Your task to perform on an android device: What's the weather going to be this weekend? Image 0: 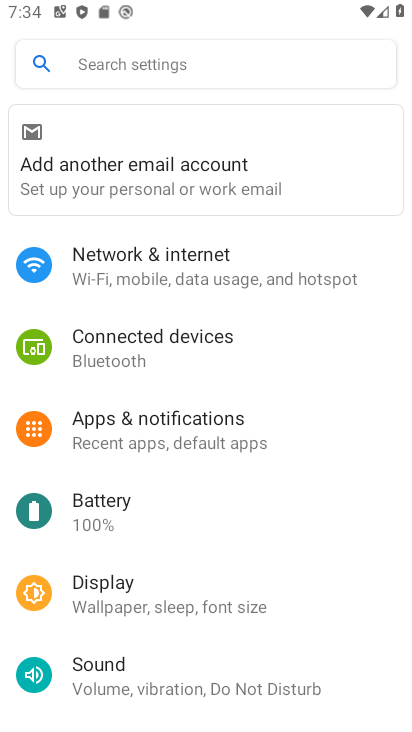
Step 0: press home button
Your task to perform on an android device: What's the weather going to be this weekend? Image 1: 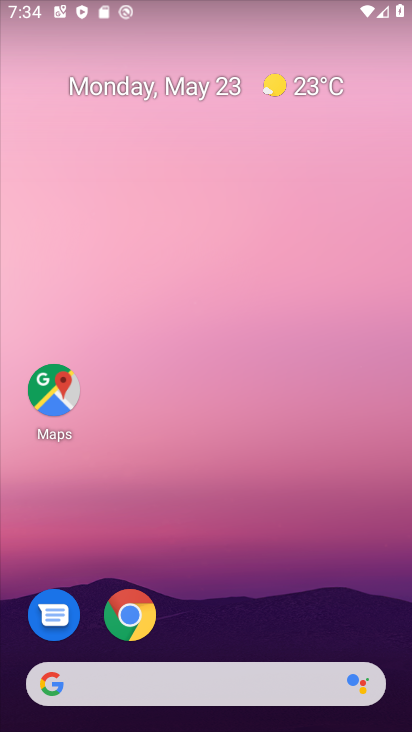
Step 1: drag from (263, 567) to (174, 274)
Your task to perform on an android device: What's the weather going to be this weekend? Image 2: 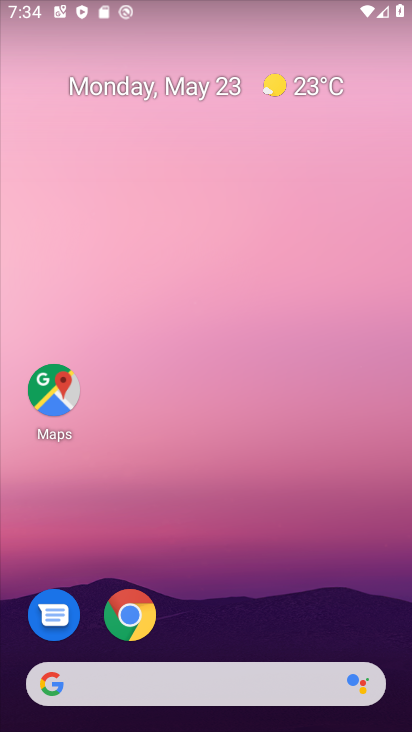
Step 2: drag from (284, 561) to (197, 138)
Your task to perform on an android device: What's the weather going to be this weekend? Image 3: 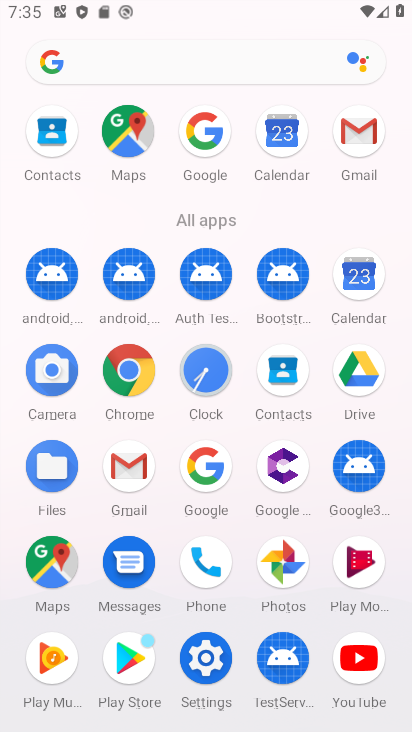
Step 3: click (201, 131)
Your task to perform on an android device: What's the weather going to be this weekend? Image 4: 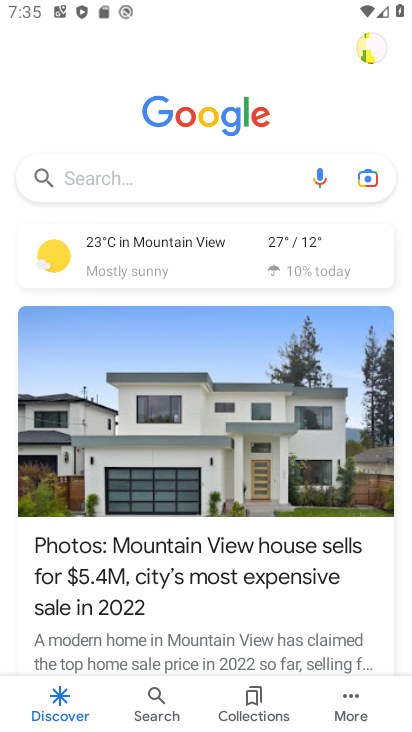
Step 4: click (221, 191)
Your task to perform on an android device: What's the weather going to be this weekend? Image 5: 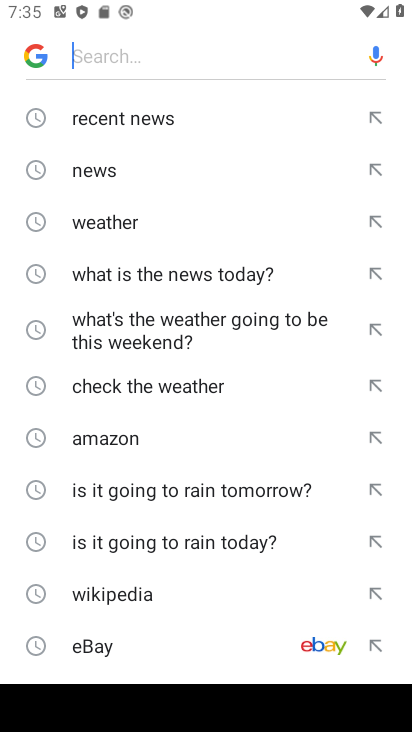
Step 5: click (194, 333)
Your task to perform on an android device: What's the weather going to be this weekend? Image 6: 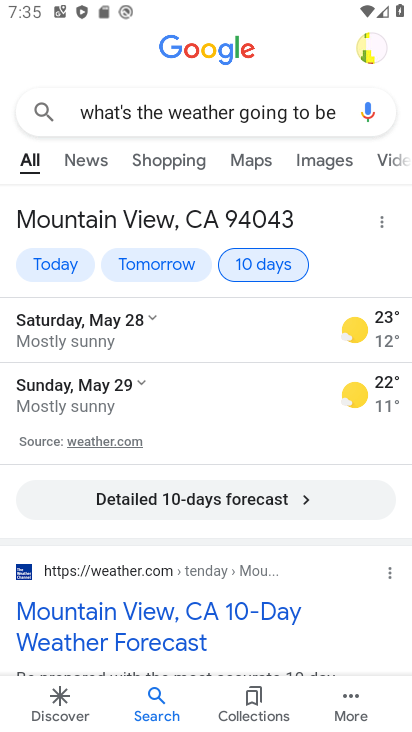
Step 6: task complete